Your task to perform on an android device: Open Google Chrome and open the bookmarks view Image 0: 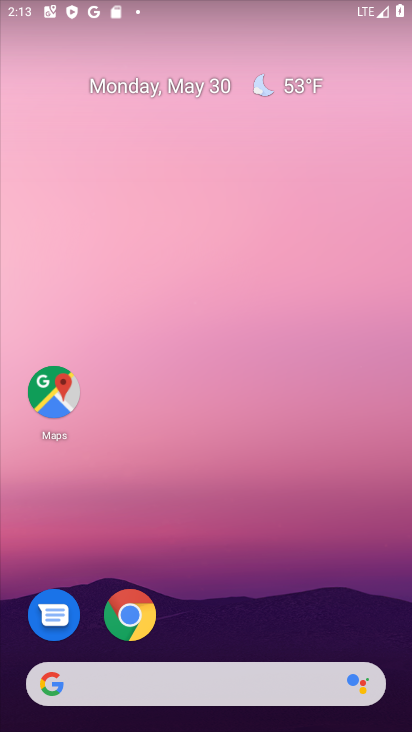
Step 0: click (133, 624)
Your task to perform on an android device: Open Google Chrome and open the bookmarks view Image 1: 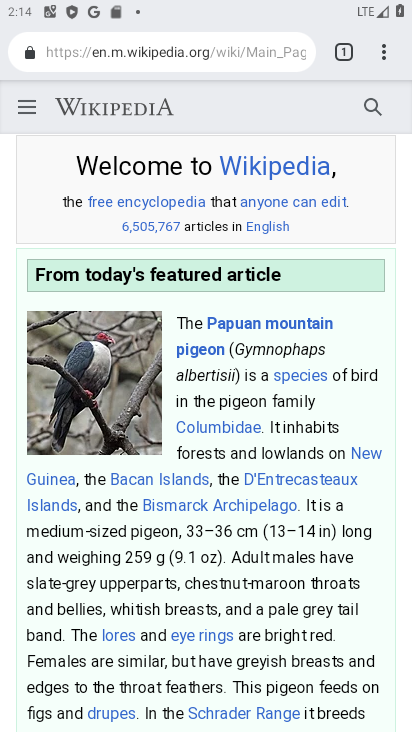
Step 1: click (381, 49)
Your task to perform on an android device: Open Google Chrome and open the bookmarks view Image 2: 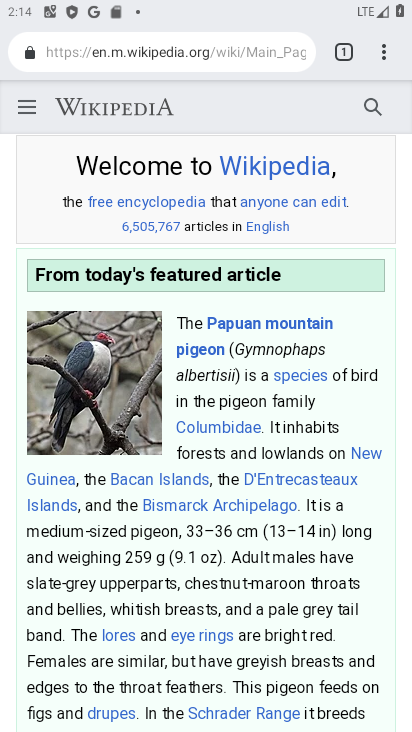
Step 2: click (375, 47)
Your task to perform on an android device: Open Google Chrome and open the bookmarks view Image 3: 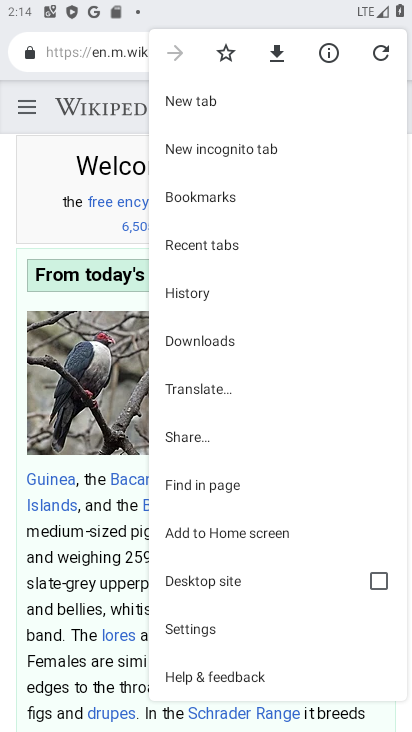
Step 3: click (195, 195)
Your task to perform on an android device: Open Google Chrome and open the bookmarks view Image 4: 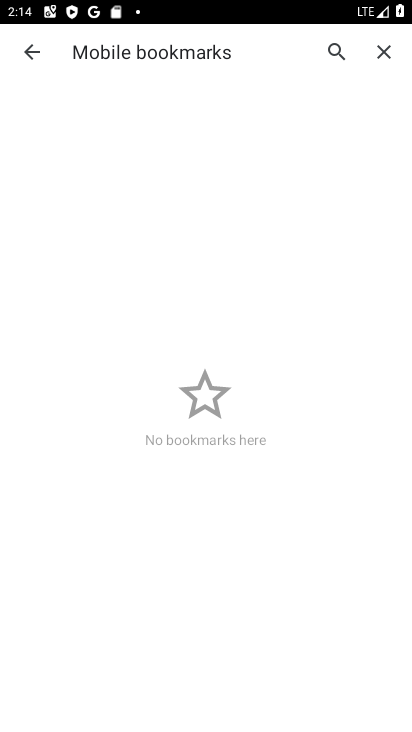
Step 4: task complete